Your task to perform on an android device: When is my next meeting? Image 0: 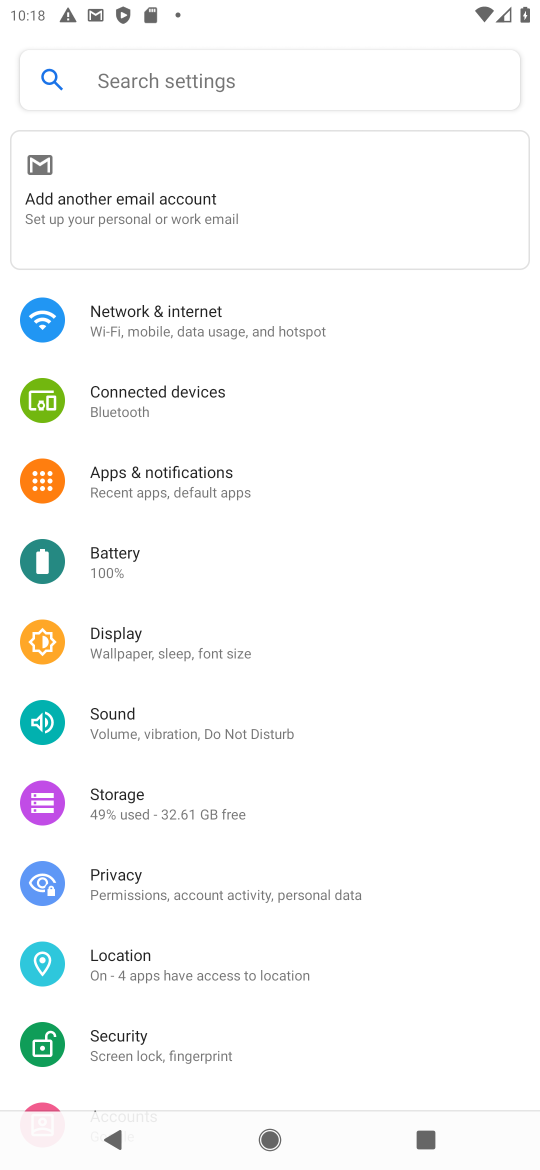
Step 0: press home button
Your task to perform on an android device: When is my next meeting? Image 1: 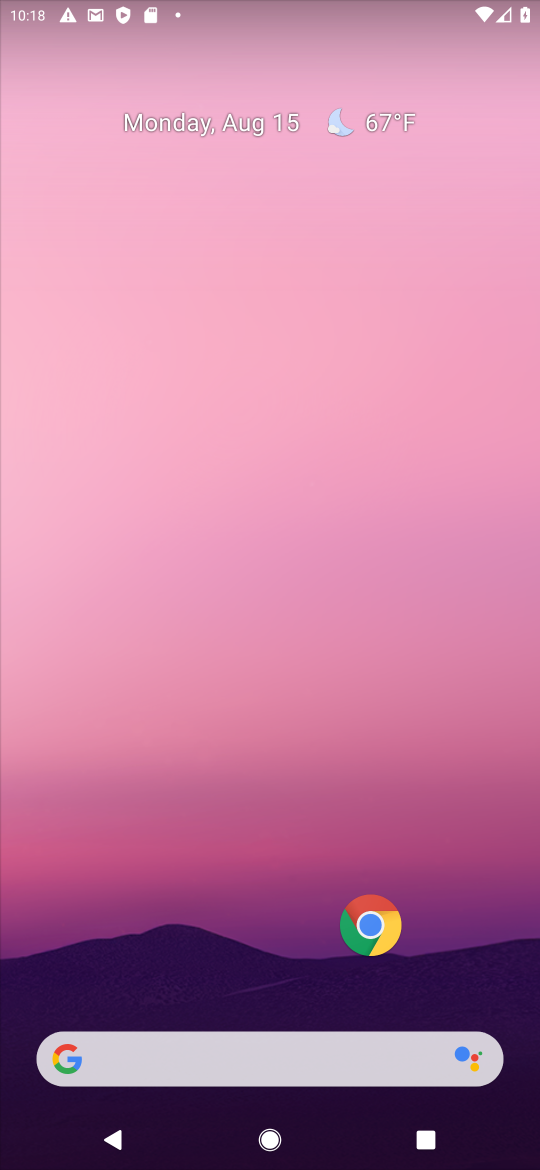
Step 1: drag from (193, 842) to (236, 19)
Your task to perform on an android device: When is my next meeting? Image 2: 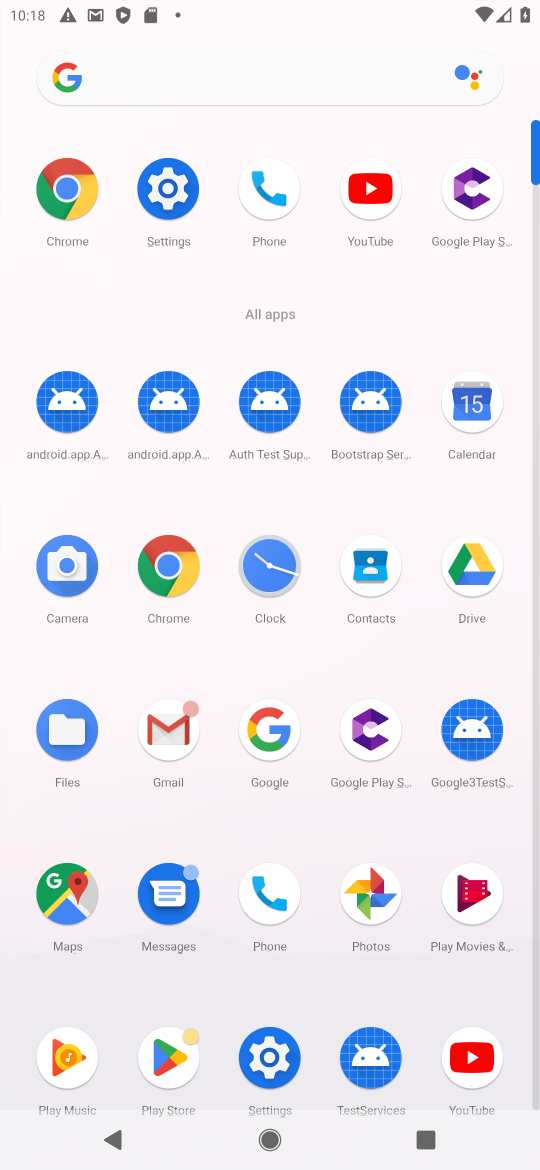
Step 2: click (468, 412)
Your task to perform on an android device: When is my next meeting? Image 3: 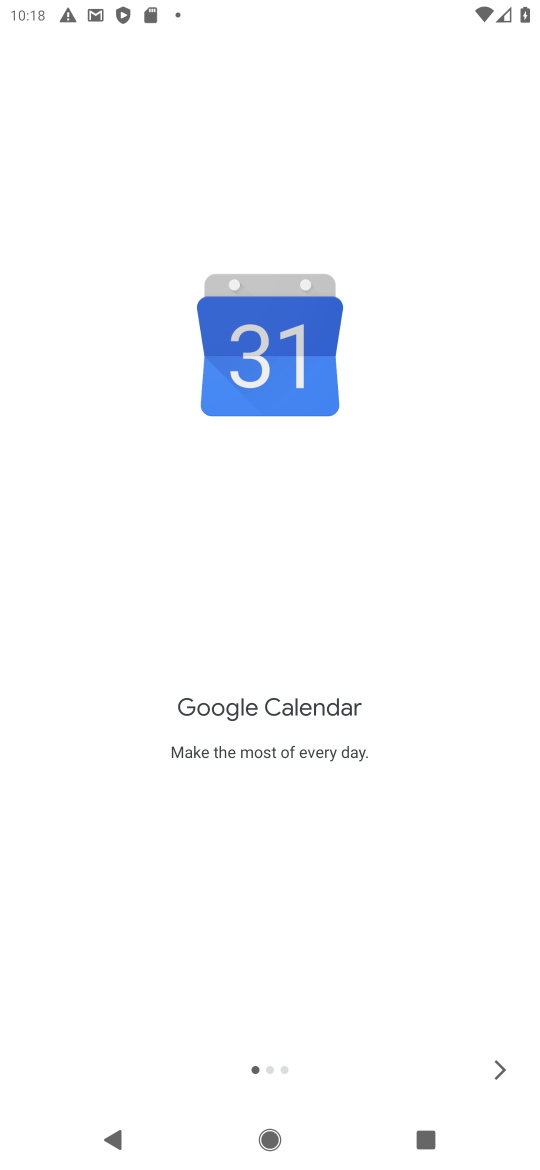
Step 3: click (491, 1061)
Your task to perform on an android device: When is my next meeting? Image 4: 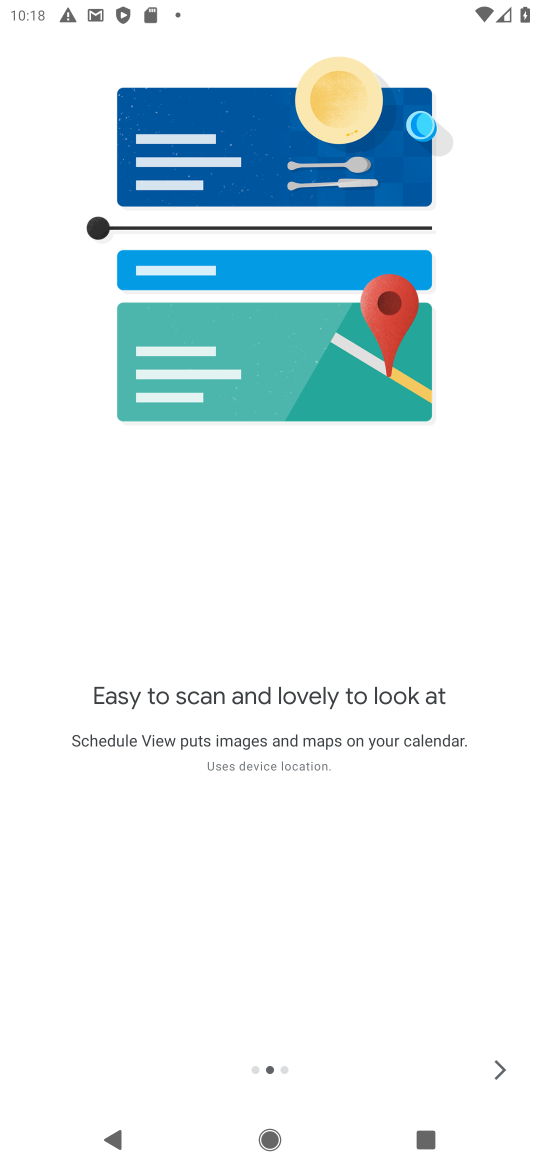
Step 4: click (489, 1075)
Your task to perform on an android device: When is my next meeting? Image 5: 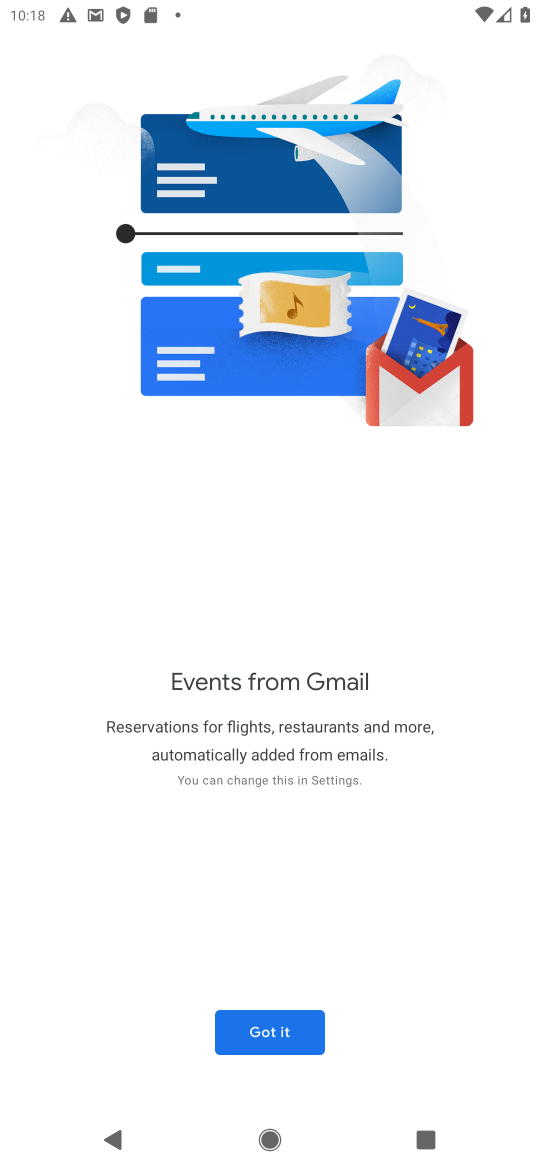
Step 5: click (269, 1043)
Your task to perform on an android device: When is my next meeting? Image 6: 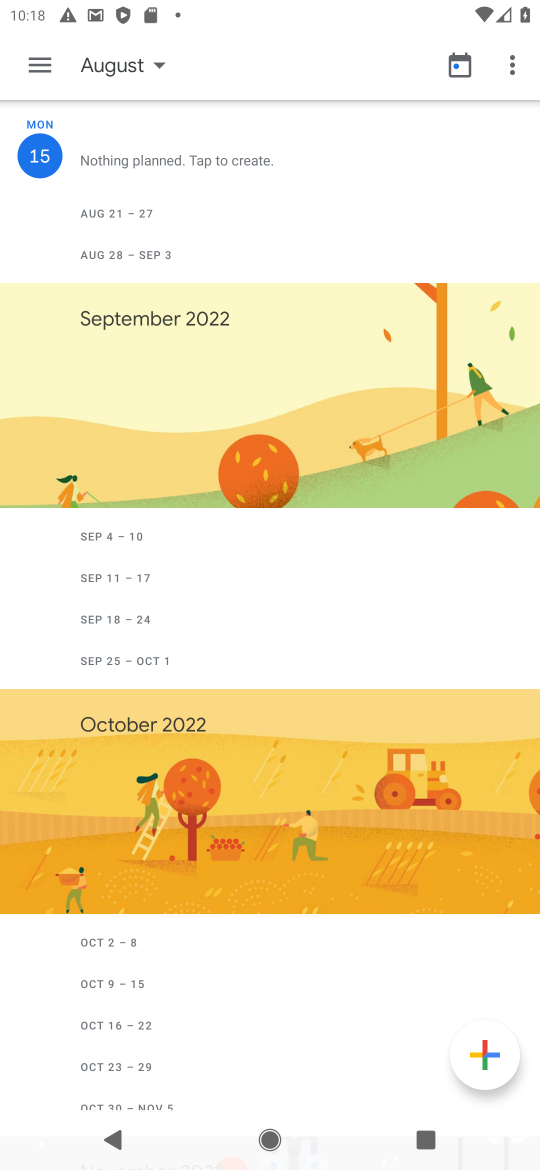
Step 6: click (88, 73)
Your task to perform on an android device: When is my next meeting? Image 7: 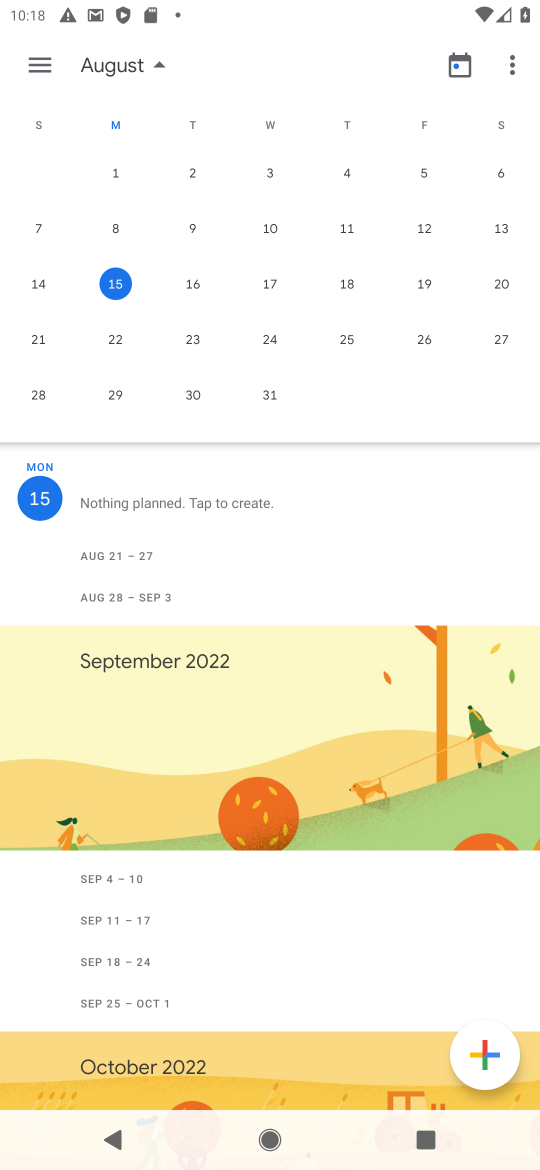
Step 7: task complete